Your task to perform on an android device: Open Amazon Image 0: 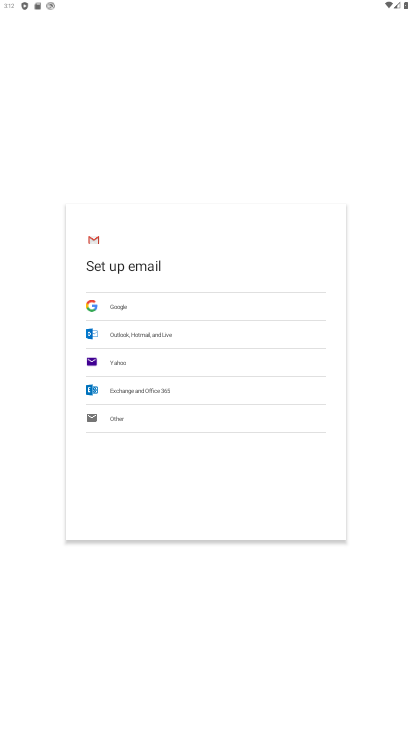
Step 0: press home button
Your task to perform on an android device: Open Amazon Image 1: 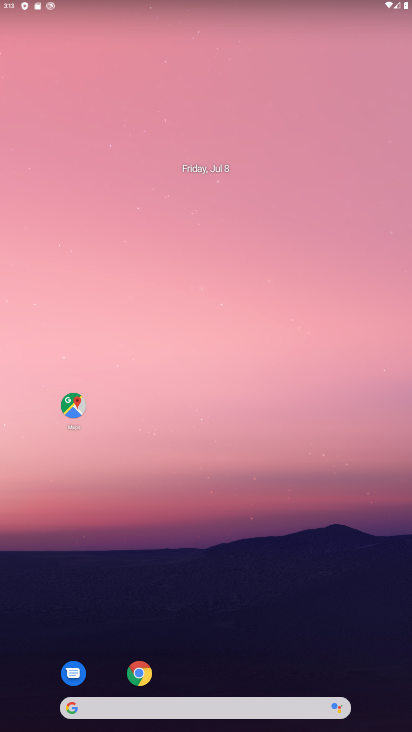
Step 1: click (139, 678)
Your task to perform on an android device: Open Amazon Image 2: 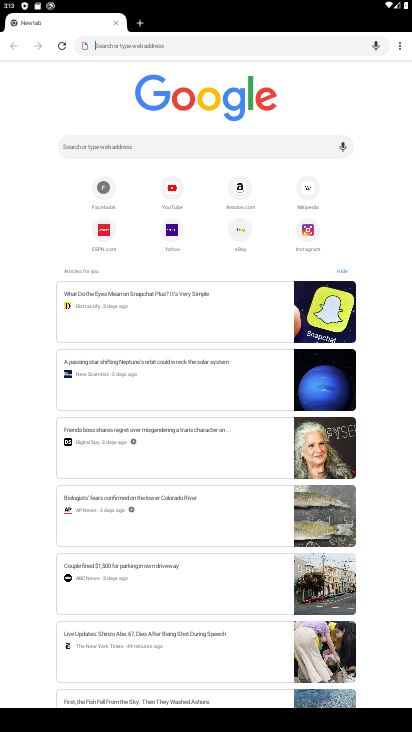
Step 2: click (235, 187)
Your task to perform on an android device: Open Amazon Image 3: 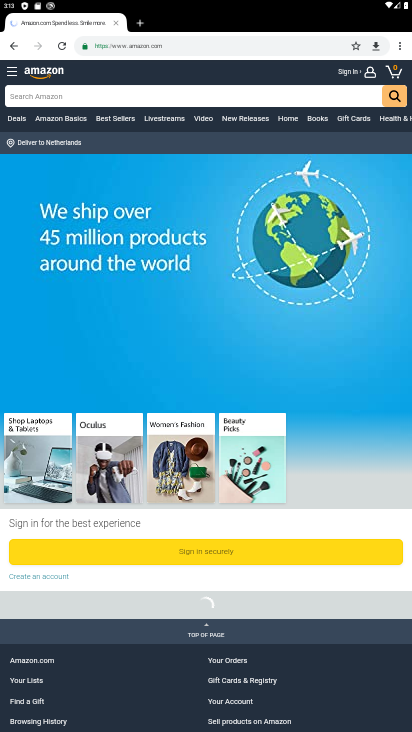
Step 3: task complete